Your task to perform on an android device: Go to Reddit.com Image 0: 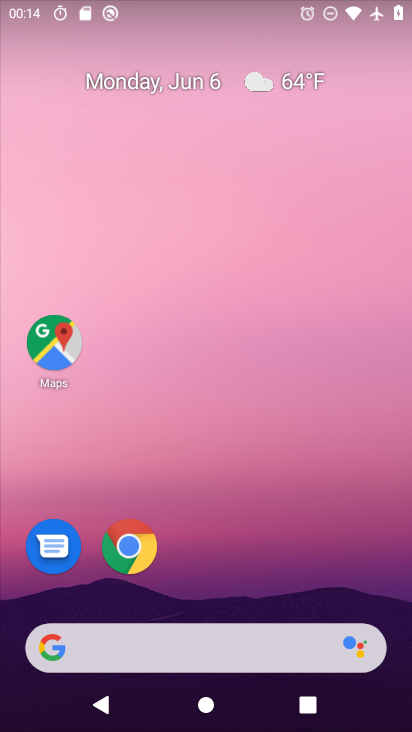
Step 0: click (289, 70)
Your task to perform on an android device: Go to Reddit.com Image 1: 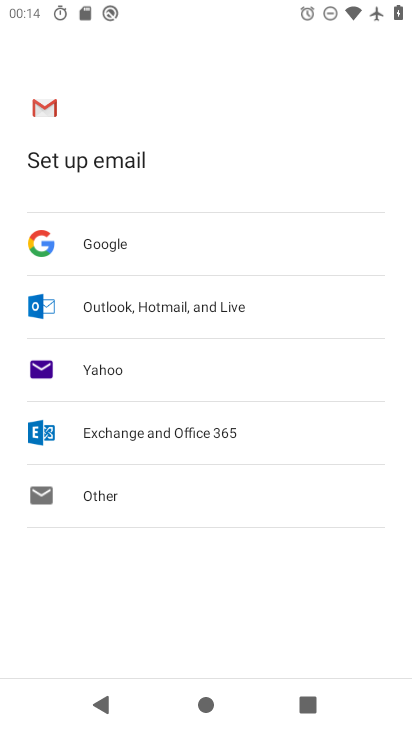
Step 1: press home button
Your task to perform on an android device: Go to Reddit.com Image 2: 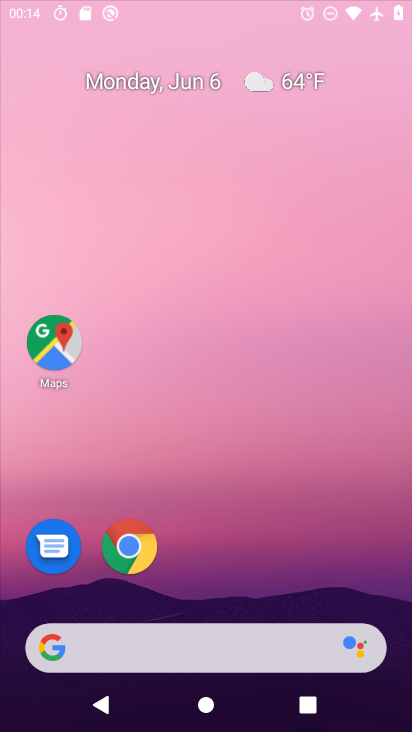
Step 2: drag from (190, 574) to (256, 179)
Your task to perform on an android device: Go to Reddit.com Image 3: 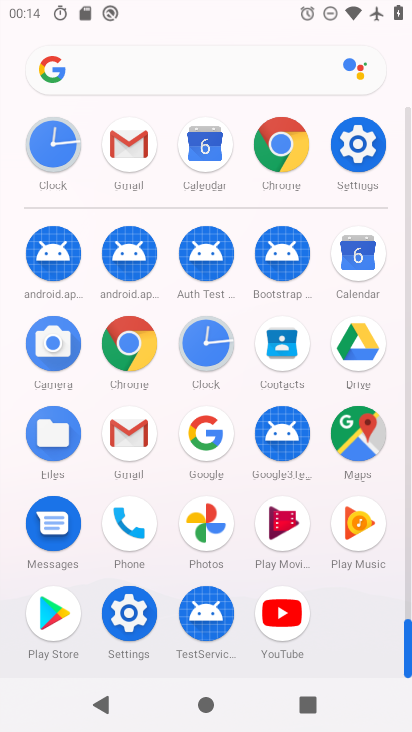
Step 3: click (120, 63)
Your task to perform on an android device: Go to Reddit.com Image 4: 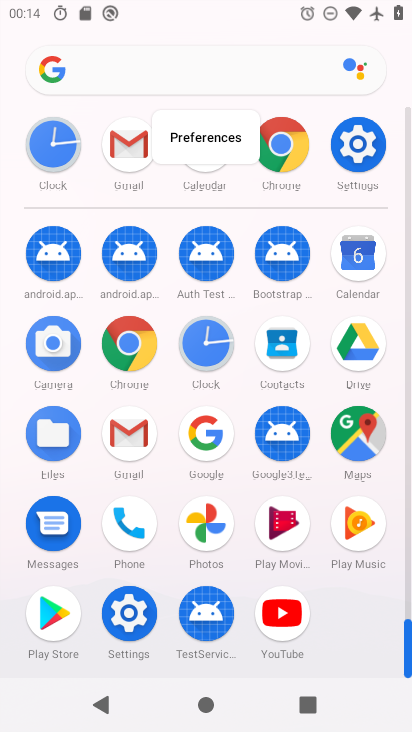
Step 4: click (121, 71)
Your task to perform on an android device: Go to Reddit.com Image 5: 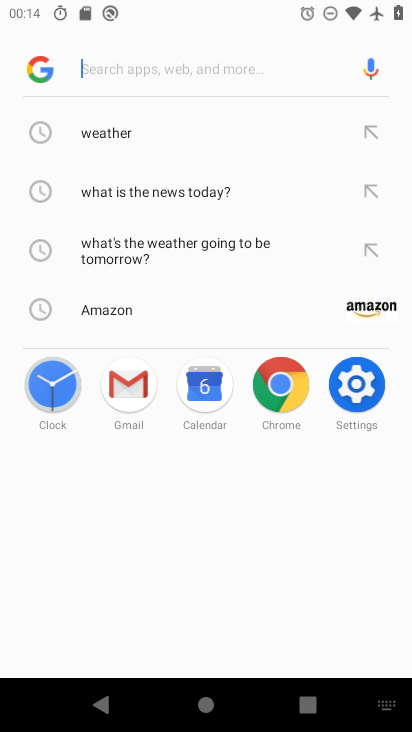
Step 5: click (118, 69)
Your task to perform on an android device: Go to Reddit.com Image 6: 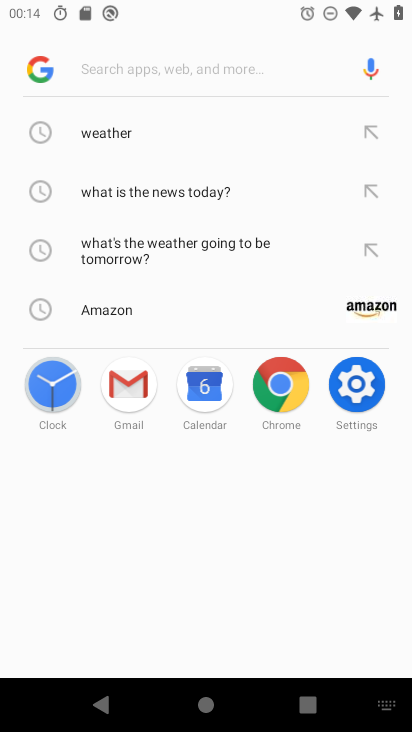
Step 6: type "Reddit.com"
Your task to perform on an android device: Go to Reddit.com Image 7: 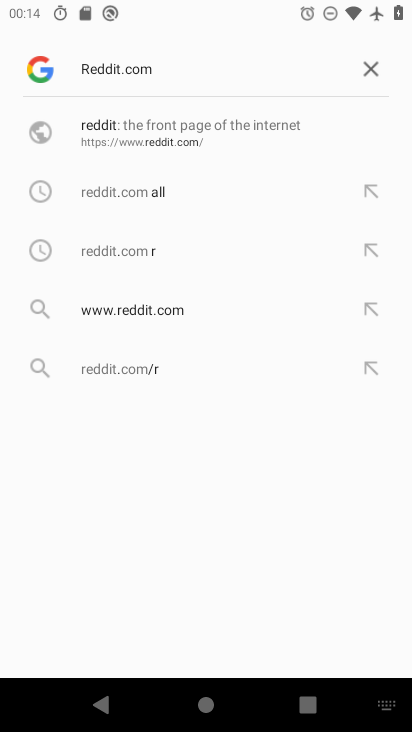
Step 7: click (123, 142)
Your task to perform on an android device: Go to Reddit.com Image 8: 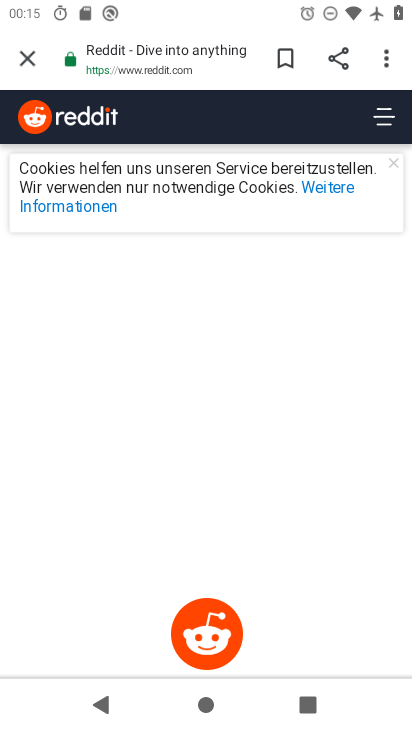
Step 8: task complete